Your task to perform on an android device: Open my contact list Image 0: 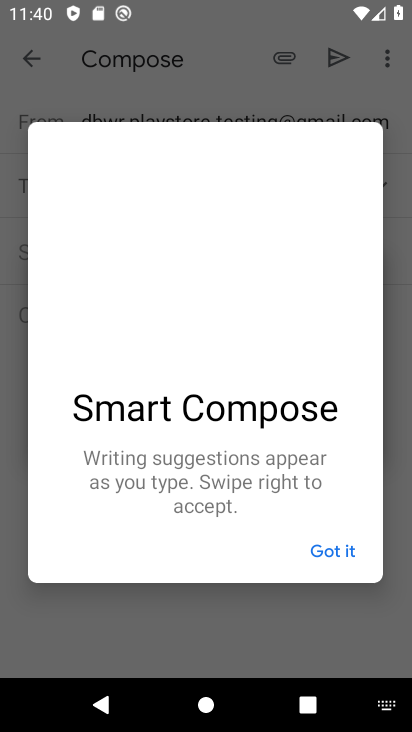
Step 0: press home button
Your task to perform on an android device: Open my contact list Image 1: 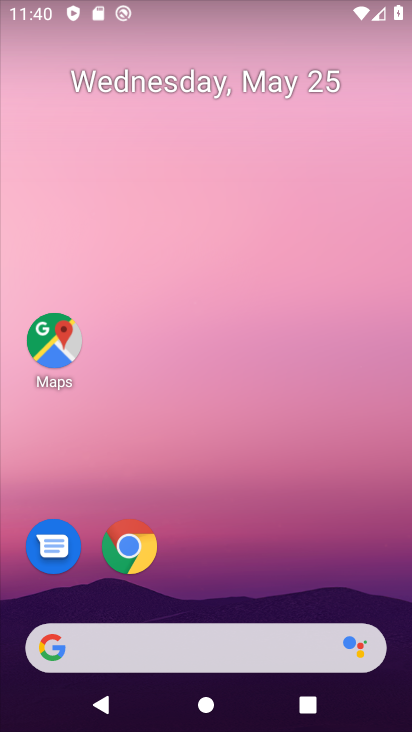
Step 1: drag from (237, 696) to (140, 17)
Your task to perform on an android device: Open my contact list Image 2: 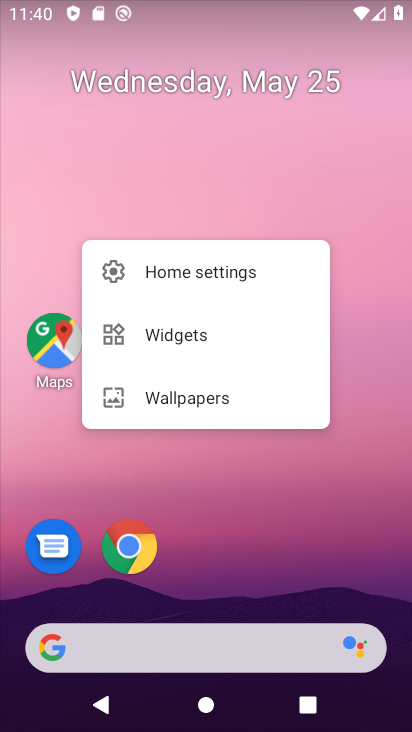
Step 2: click (242, 708)
Your task to perform on an android device: Open my contact list Image 3: 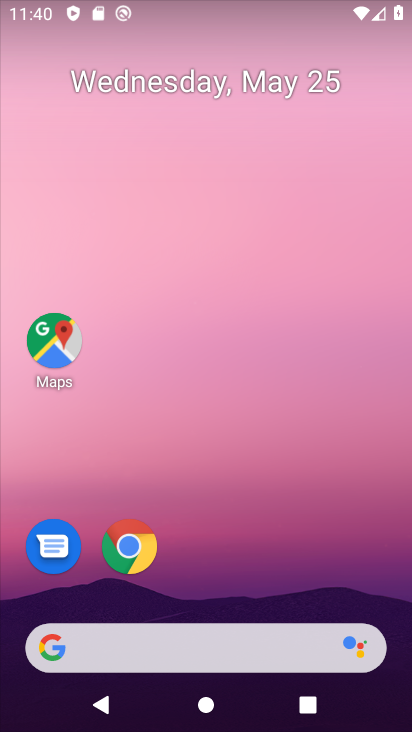
Step 3: press home button
Your task to perform on an android device: Open my contact list Image 4: 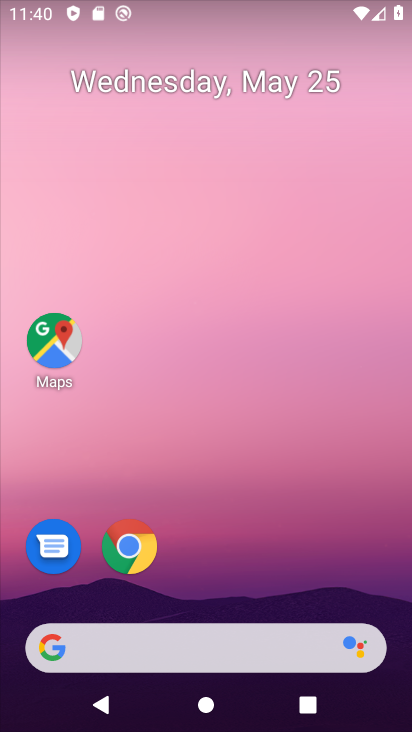
Step 4: drag from (148, 708) to (195, 123)
Your task to perform on an android device: Open my contact list Image 5: 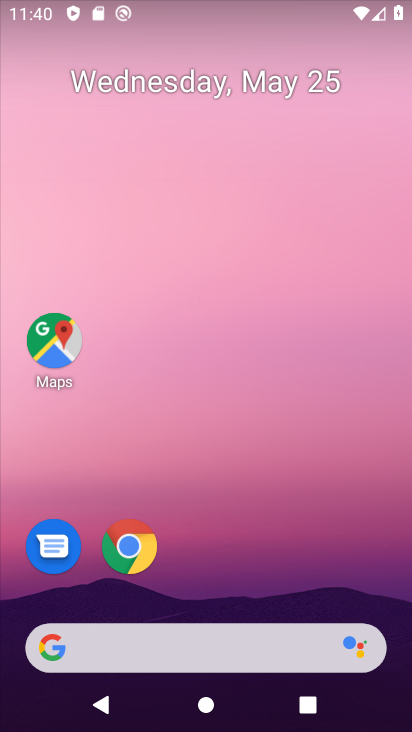
Step 5: drag from (279, 718) to (204, 76)
Your task to perform on an android device: Open my contact list Image 6: 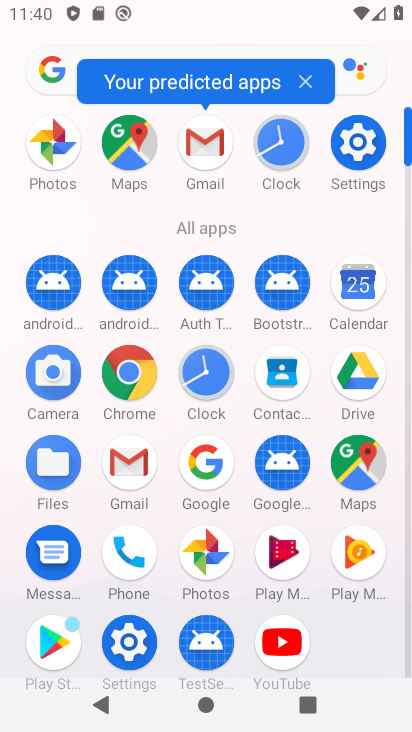
Step 6: click (279, 383)
Your task to perform on an android device: Open my contact list Image 7: 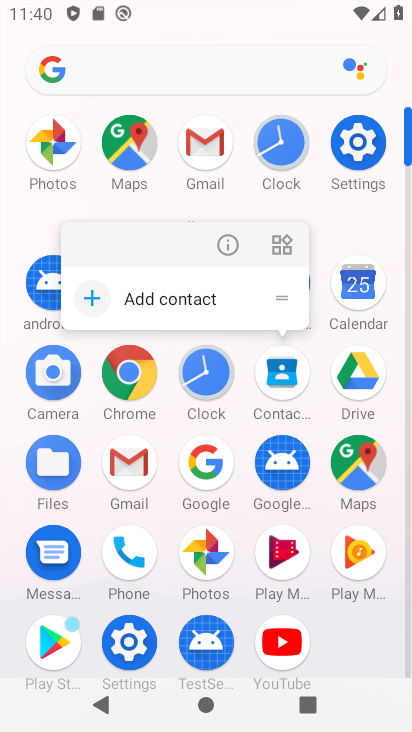
Step 7: click (279, 383)
Your task to perform on an android device: Open my contact list Image 8: 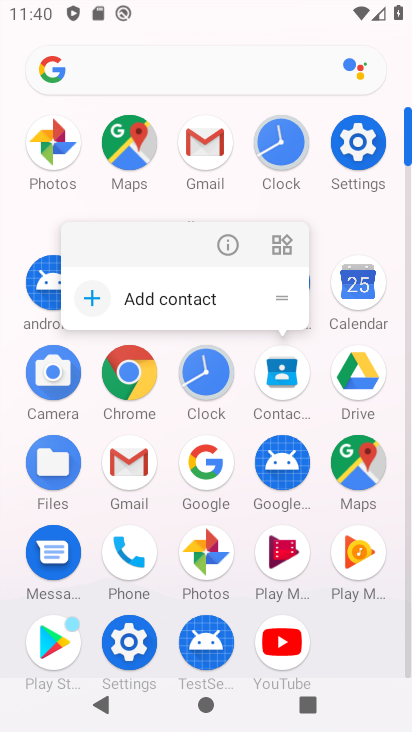
Step 8: click (279, 383)
Your task to perform on an android device: Open my contact list Image 9: 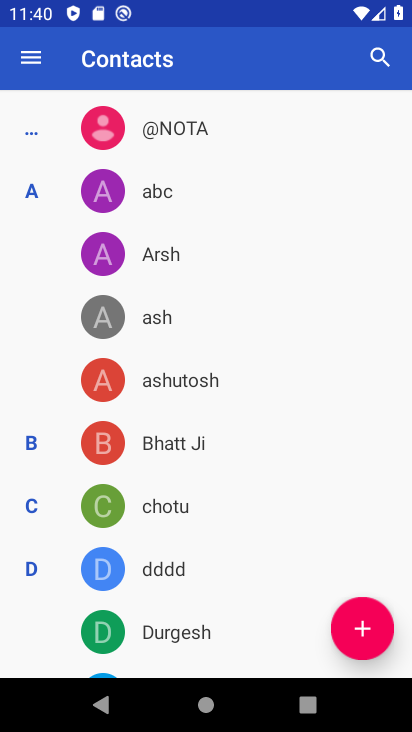
Step 9: task complete